Your task to perform on an android device: Open Chrome and go to settings Image 0: 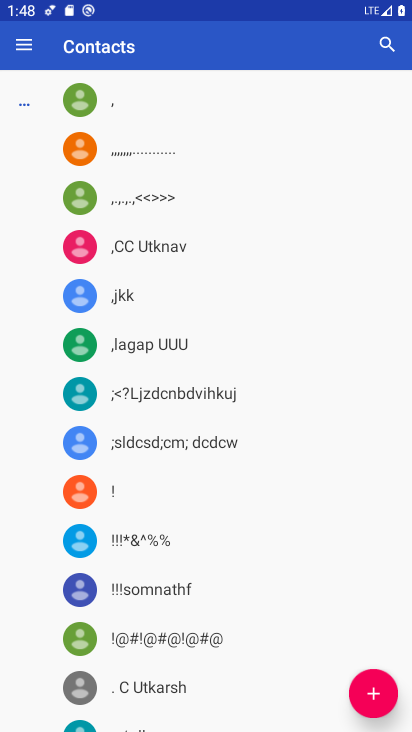
Step 0: press home button
Your task to perform on an android device: Open Chrome and go to settings Image 1: 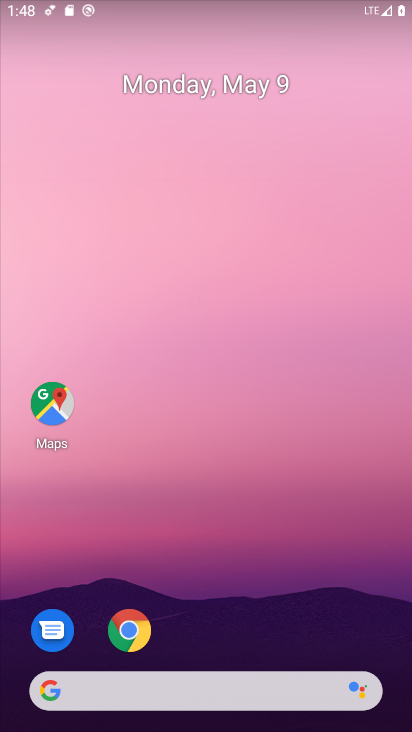
Step 1: click (147, 620)
Your task to perform on an android device: Open Chrome and go to settings Image 2: 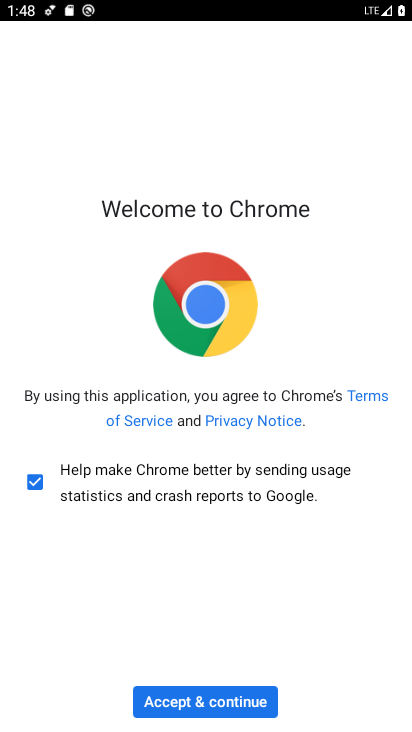
Step 2: click (239, 709)
Your task to perform on an android device: Open Chrome and go to settings Image 3: 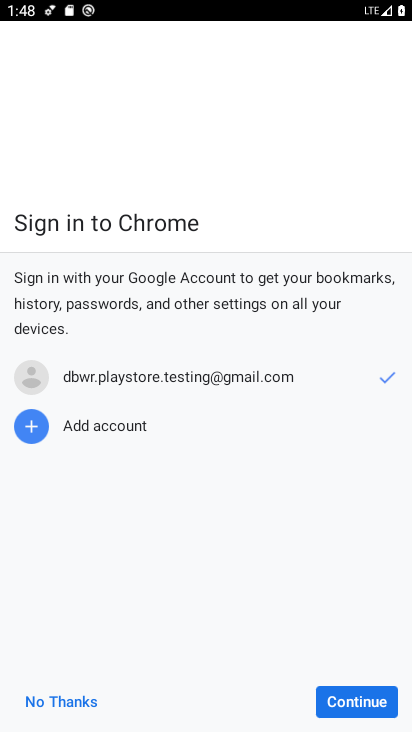
Step 3: click (239, 704)
Your task to perform on an android device: Open Chrome and go to settings Image 4: 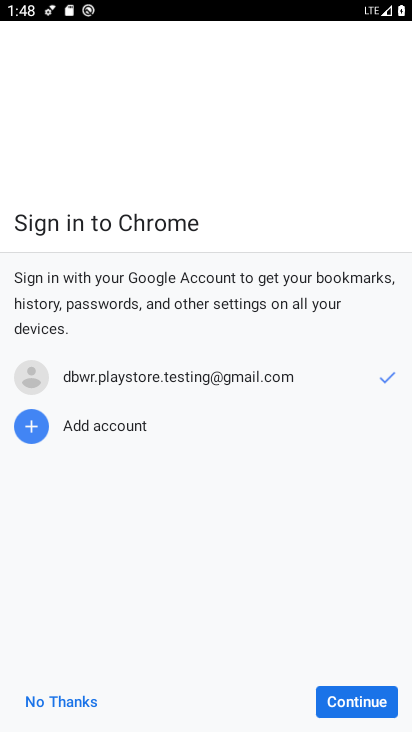
Step 4: click (357, 708)
Your task to perform on an android device: Open Chrome and go to settings Image 5: 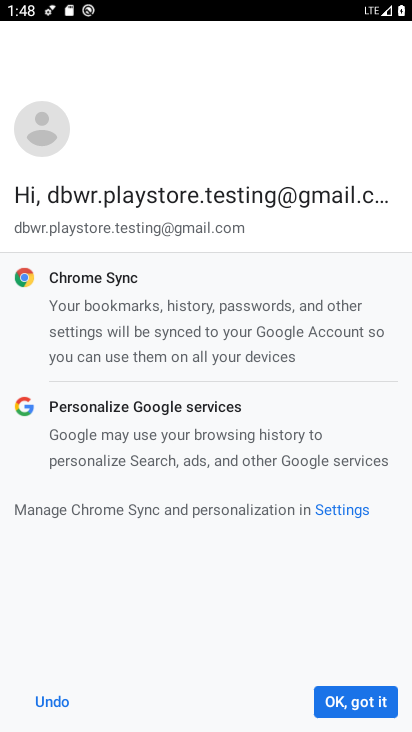
Step 5: click (359, 709)
Your task to perform on an android device: Open Chrome and go to settings Image 6: 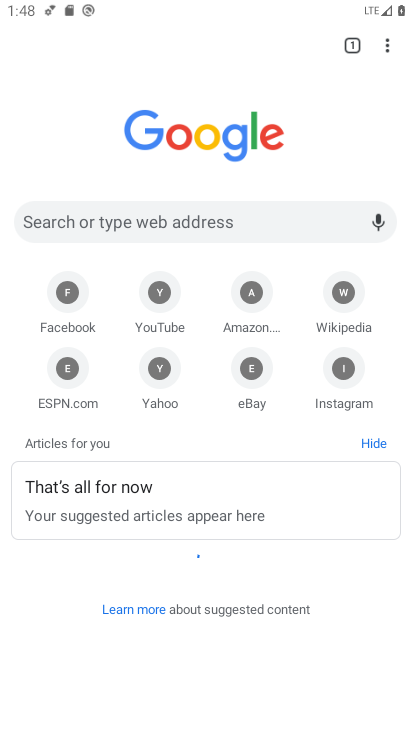
Step 6: click (397, 46)
Your task to perform on an android device: Open Chrome and go to settings Image 7: 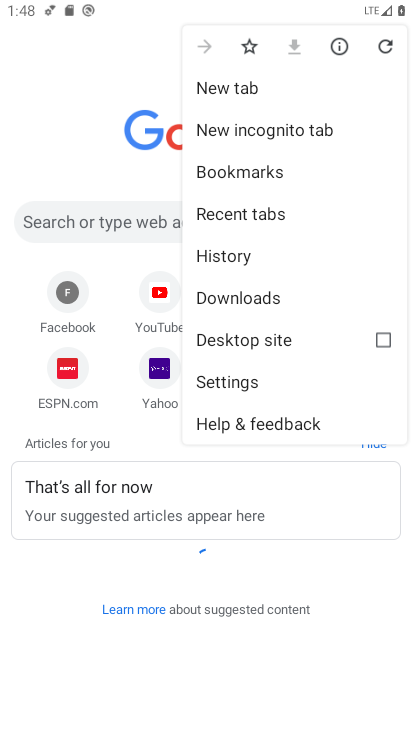
Step 7: click (237, 389)
Your task to perform on an android device: Open Chrome and go to settings Image 8: 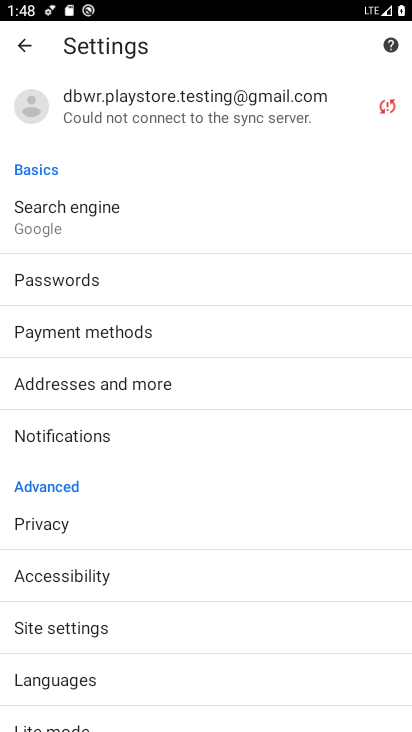
Step 8: task complete